Your task to perform on an android device: turn off javascript in the chrome app Image 0: 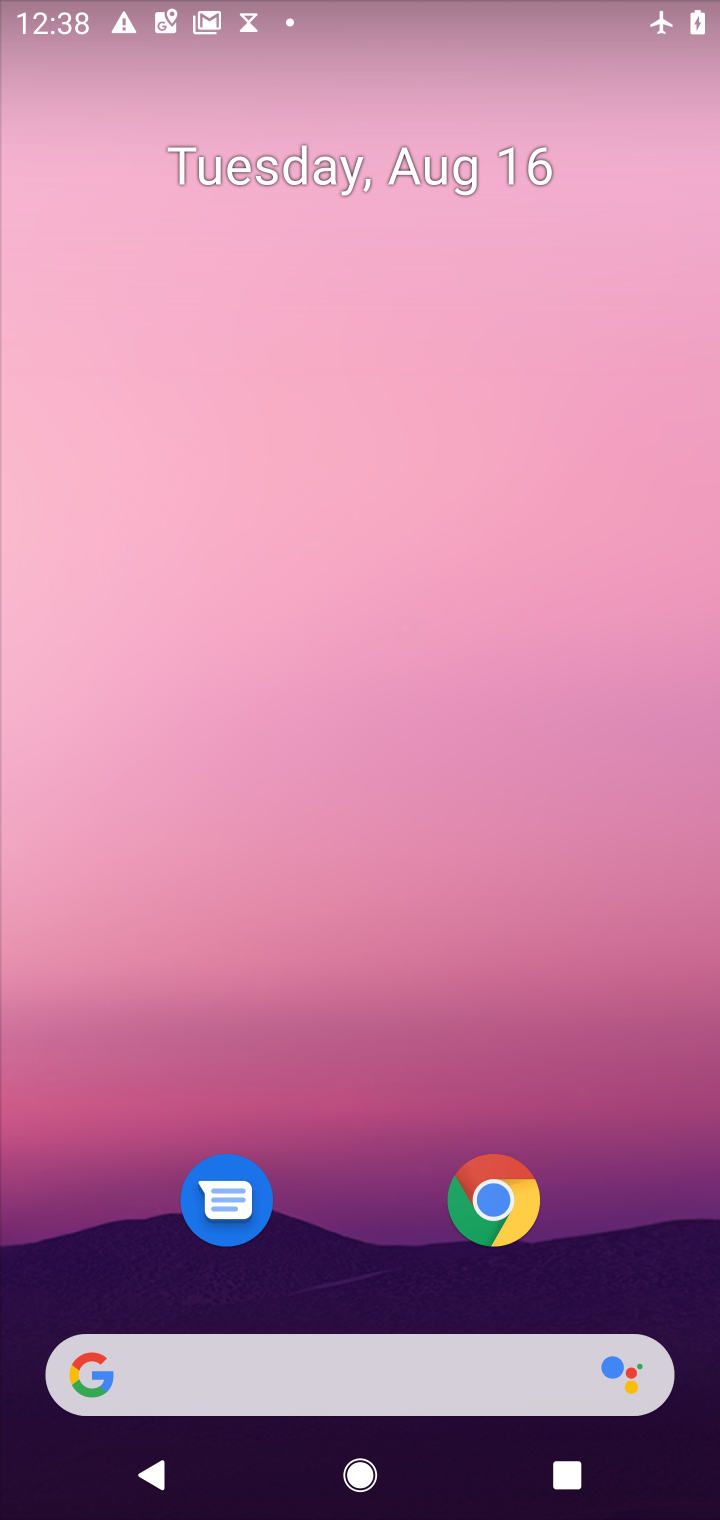
Step 0: click (475, 1201)
Your task to perform on an android device: turn off javascript in the chrome app Image 1: 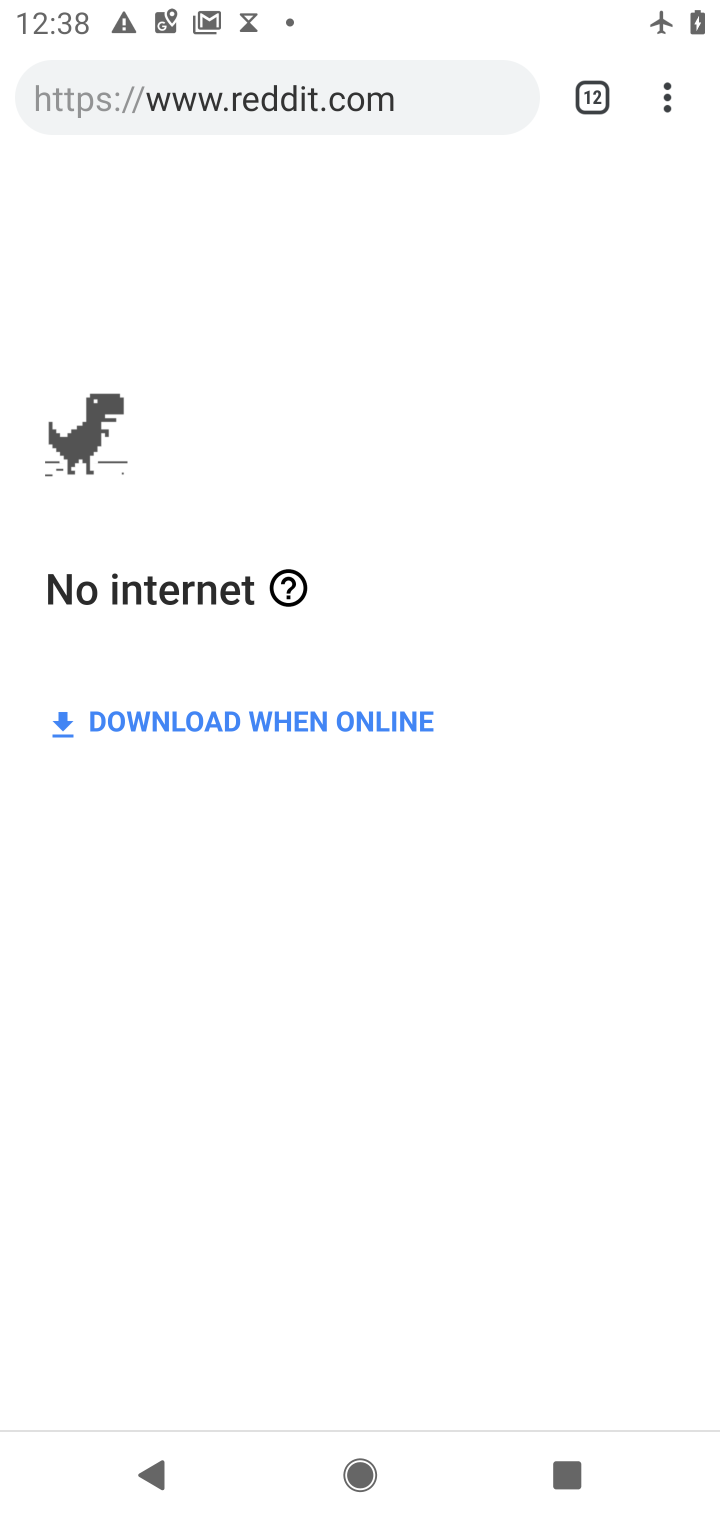
Step 1: click (675, 93)
Your task to perform on an android device: turn off javascript in the chrome app Image 2: 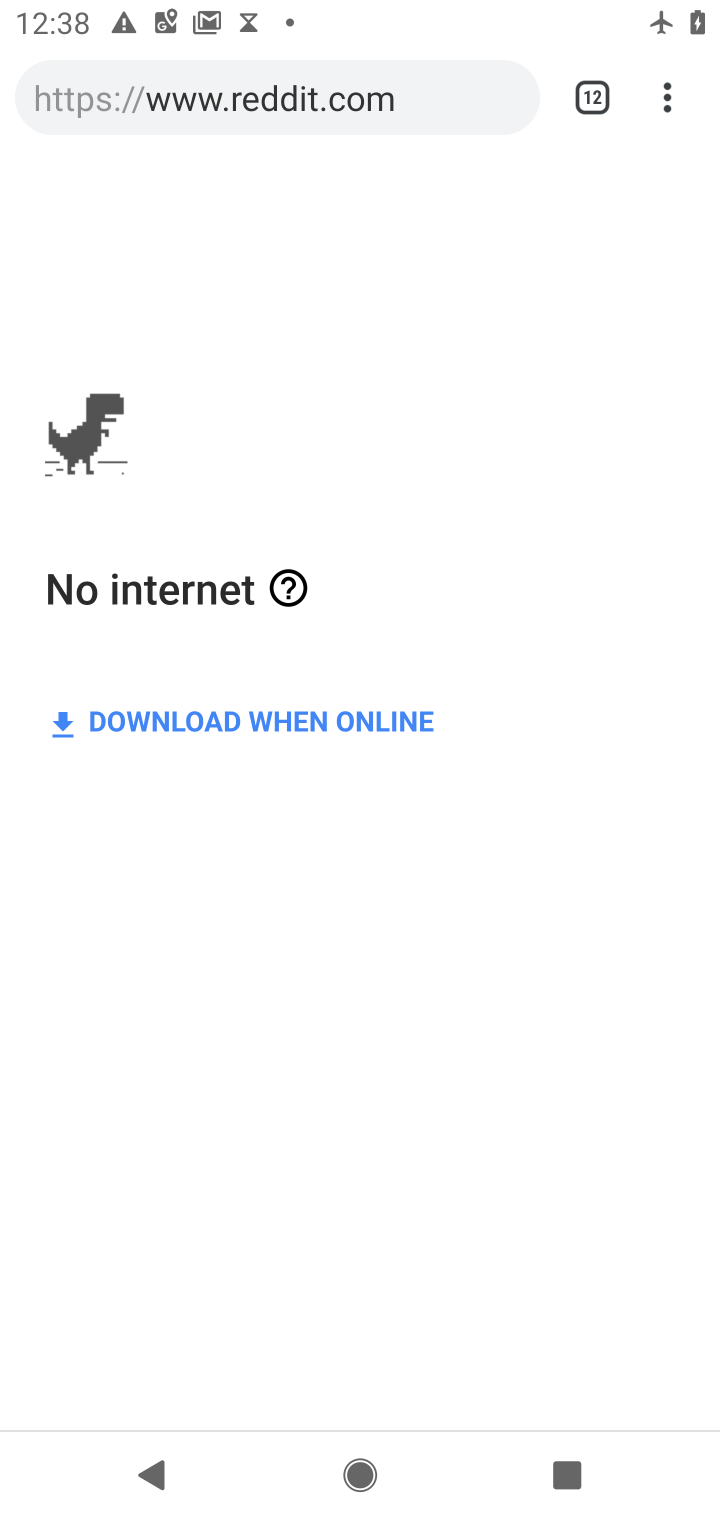
Step 2: click (664, 105)
Your task to perform on an android device: turn off javascript in the chrome app Image 3: 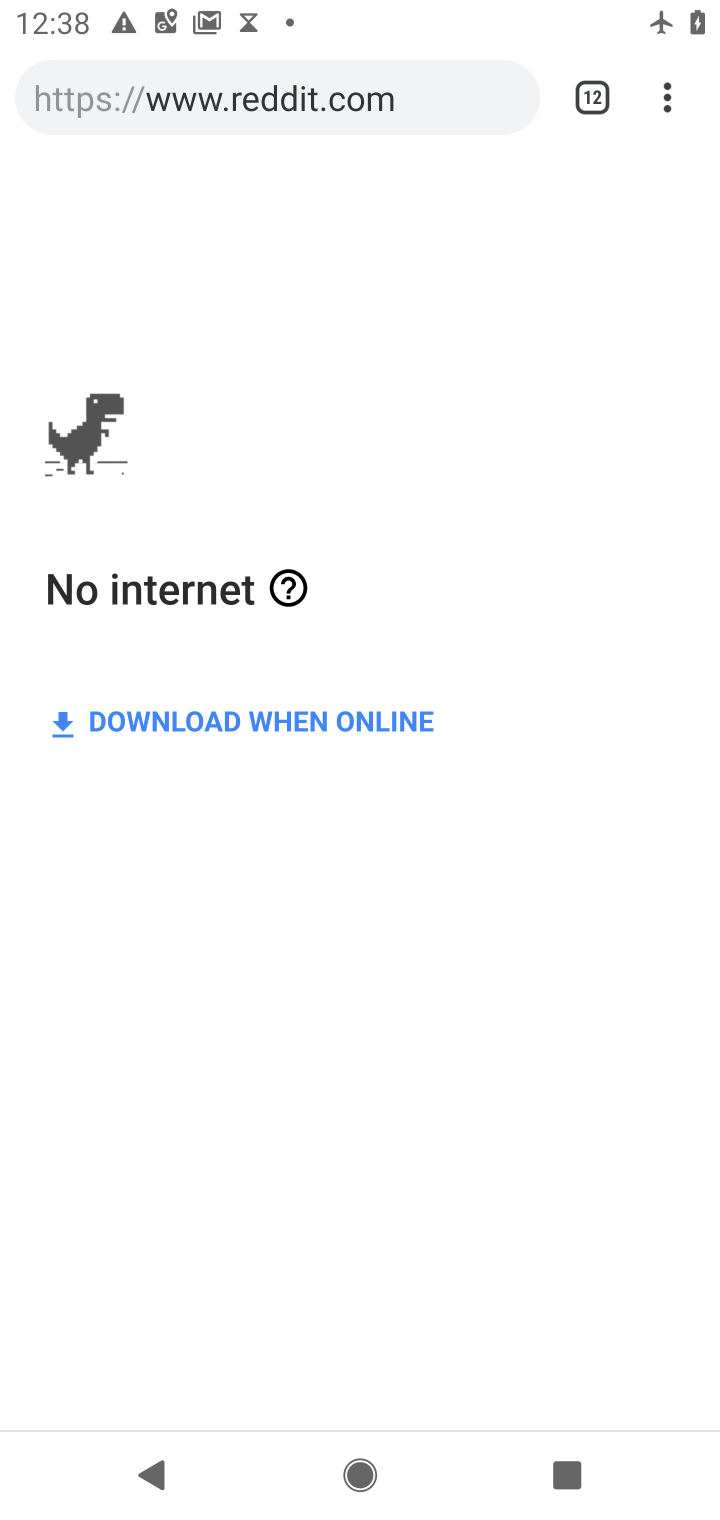
Step 3: drag from (664, 105) to (379, 1078)
Your task to perform on an android device: turn off javascript in the chrome app Image 4: 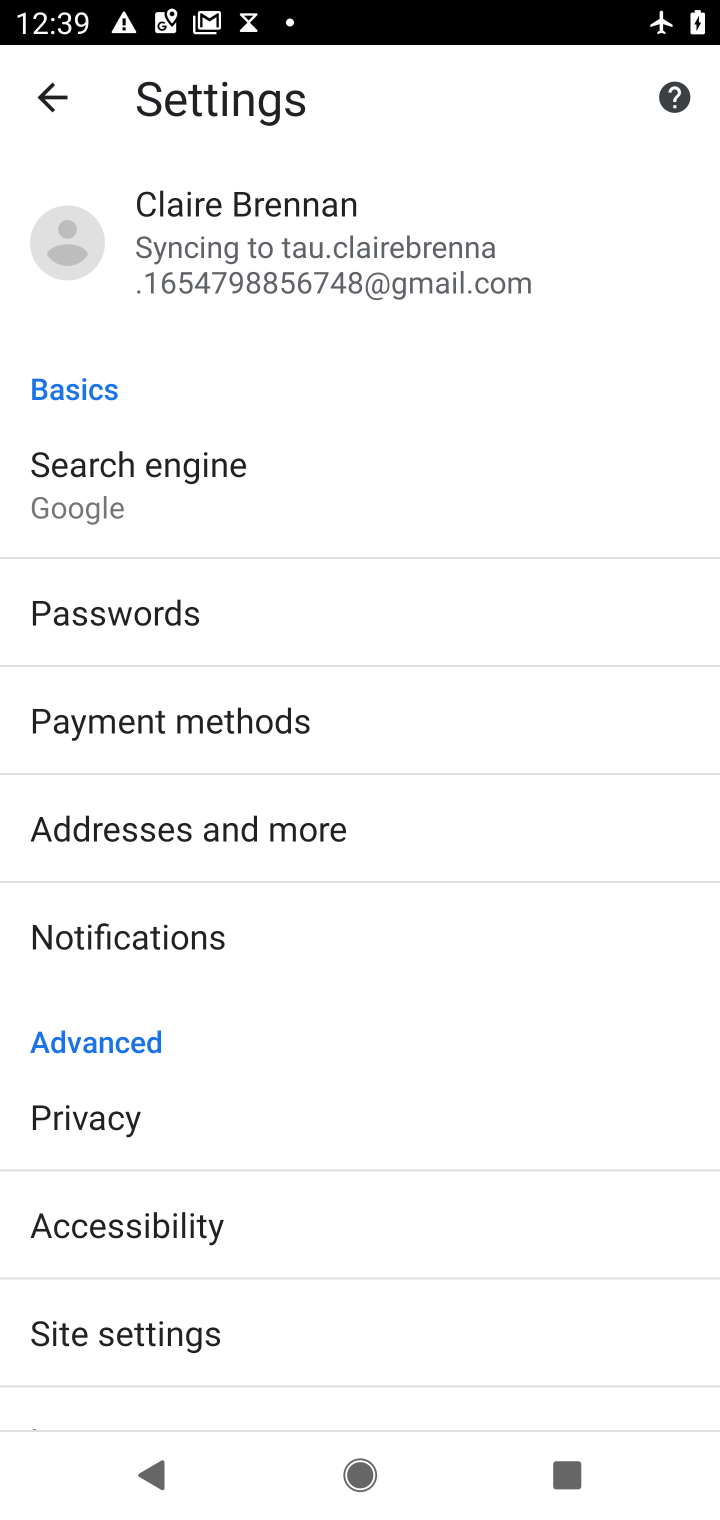
Step 4: drag from (257, 1271) to (254, 600)
Your task to perform on an android device: turn off javascript in the chrome app Image 5: 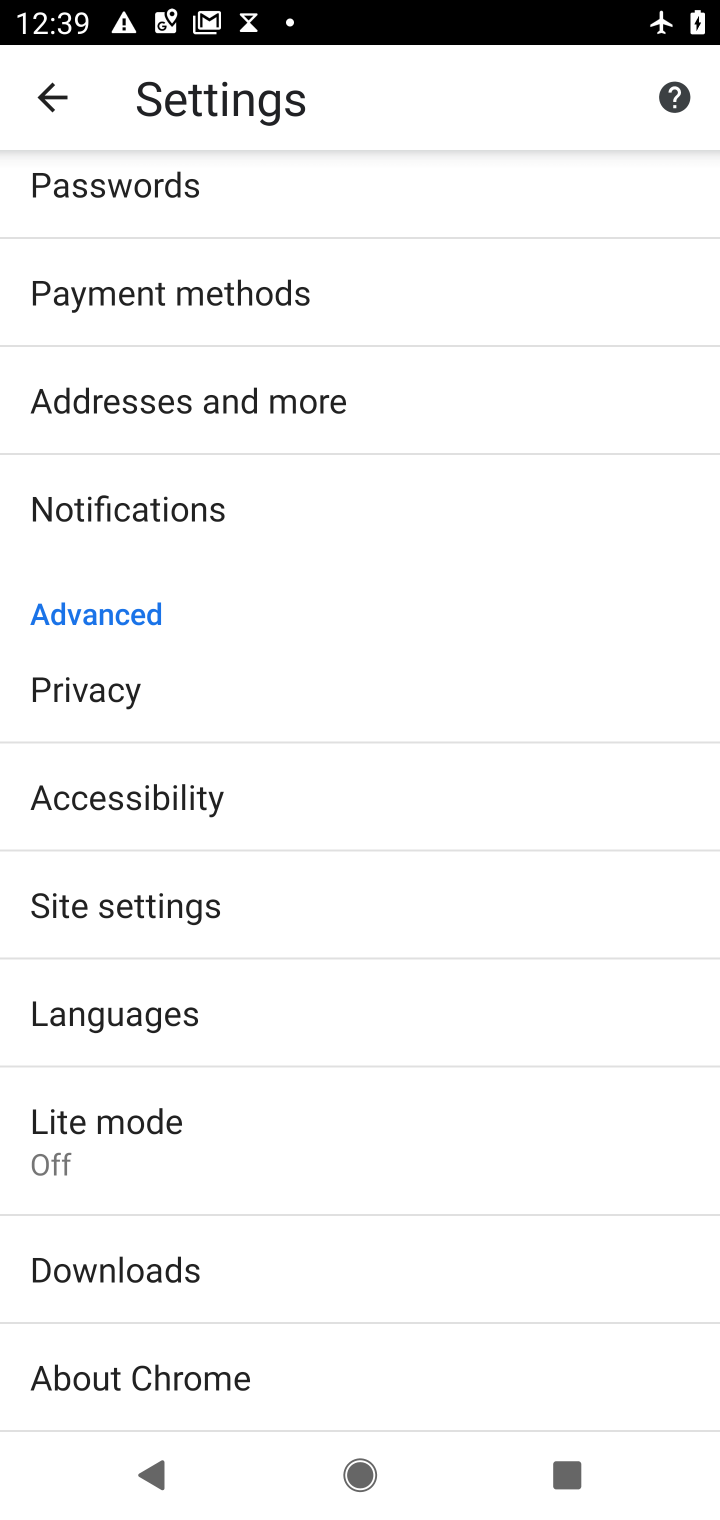
Step 5: click (187, 902)
Your task to perform on an android device: turn off javascript in the chrome app Image 6: 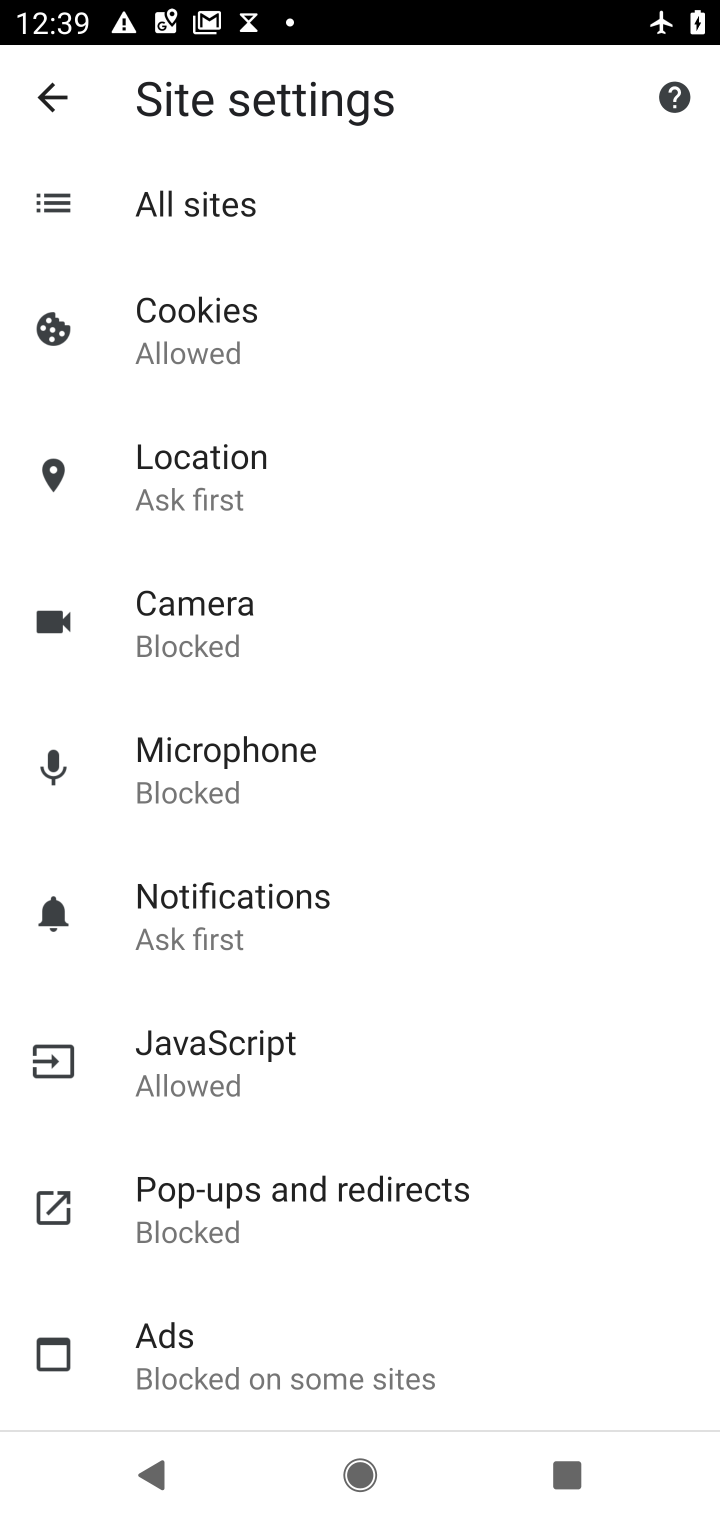
Step 6: click (246, 1032)
Your task to perform on an android device: turn off javascript in the chrome app Image 7: 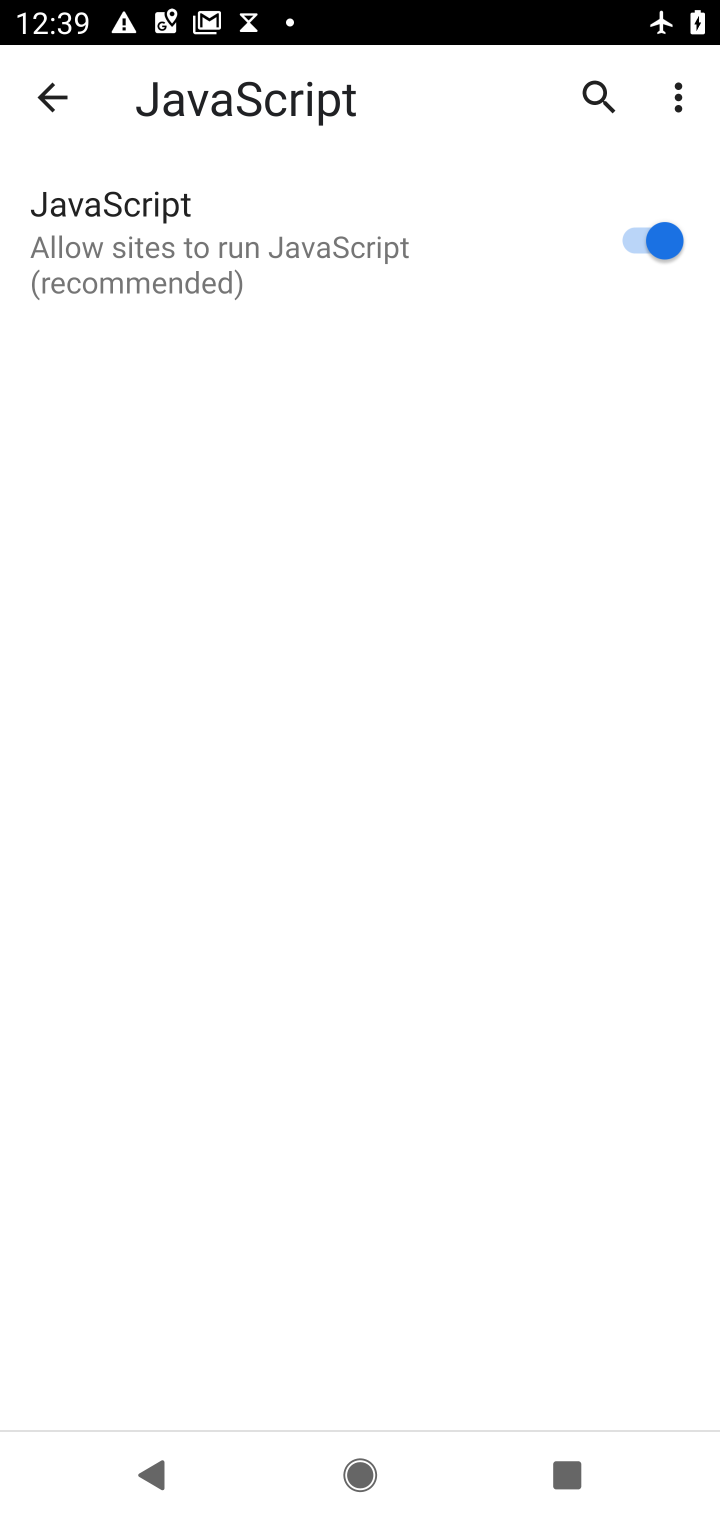
Step 7: click (657, 227)
Your task to perform on an android device: turn off javascript in the chrome app Image 8: 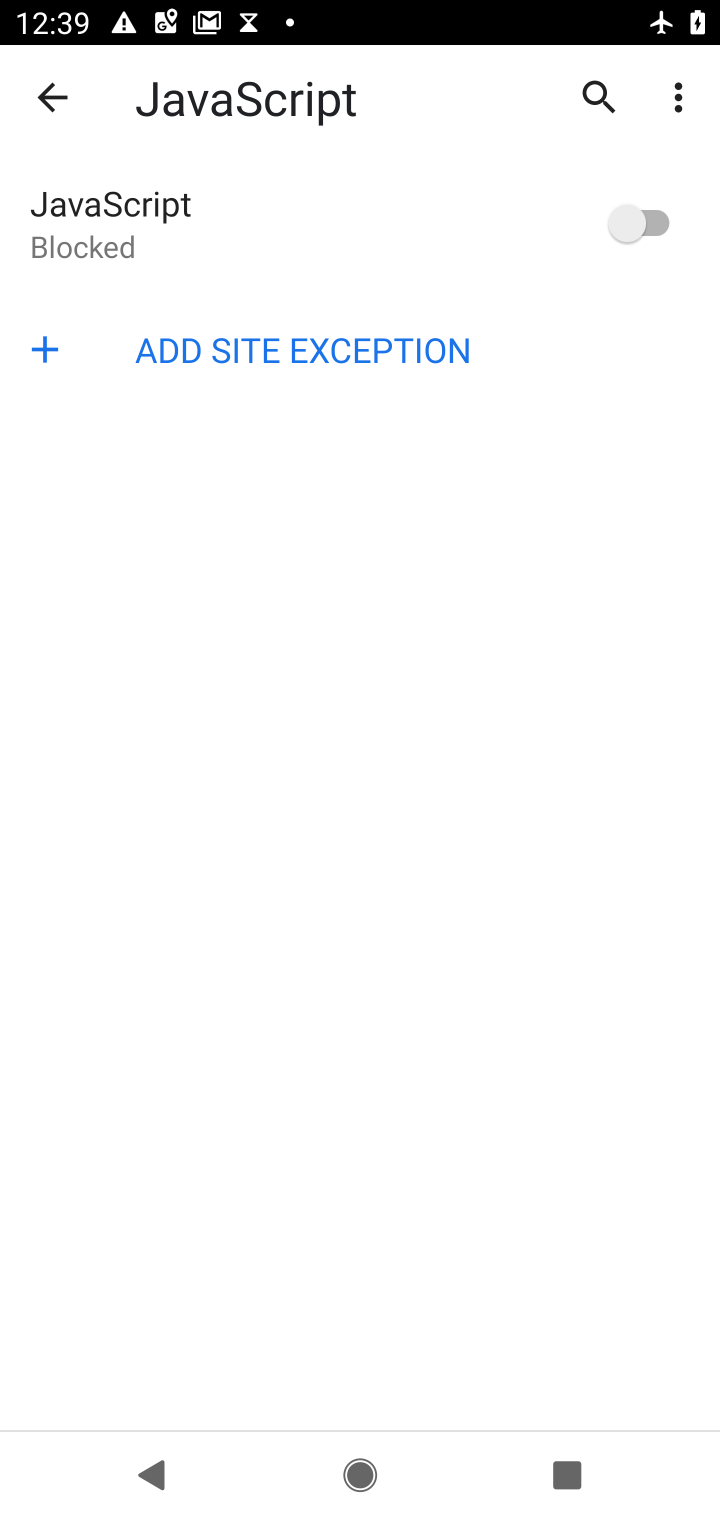
Step 8: task complete